Your task to perform on an android device: check storage Image 0: 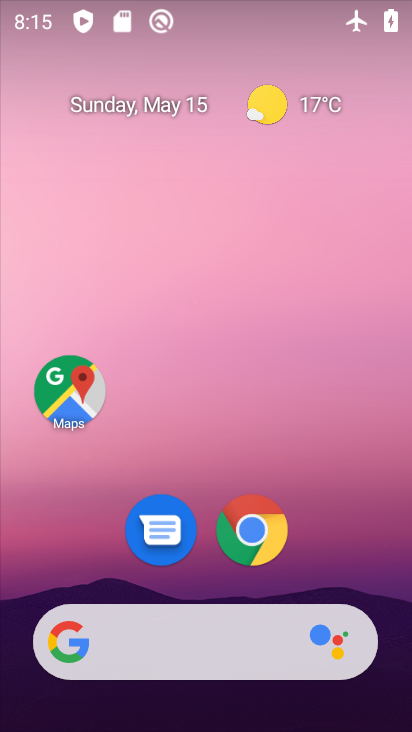
Step 0: drag from (225, 724) to (229, 194)
Your task to perform on an android device: check storage Image 1: 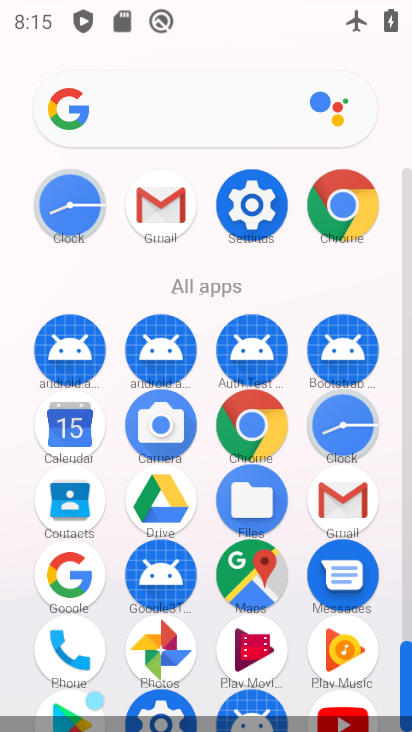
Step 1: click (254, 206)
Your task to perform on an android device: check storage Image 2: 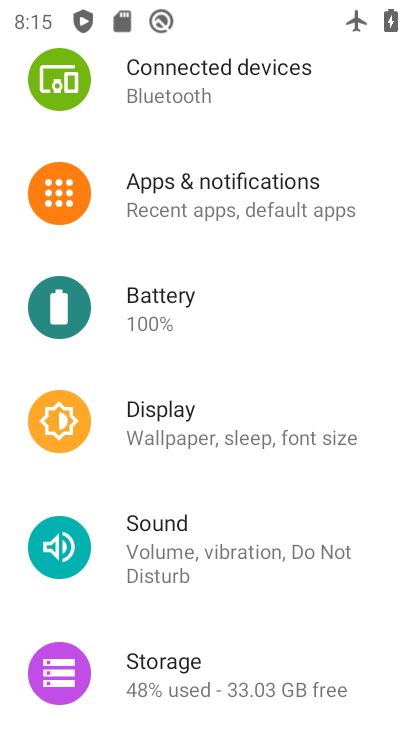
Step 2: click (158, 672)
Your task to perform on an android device: check storage Image 3: 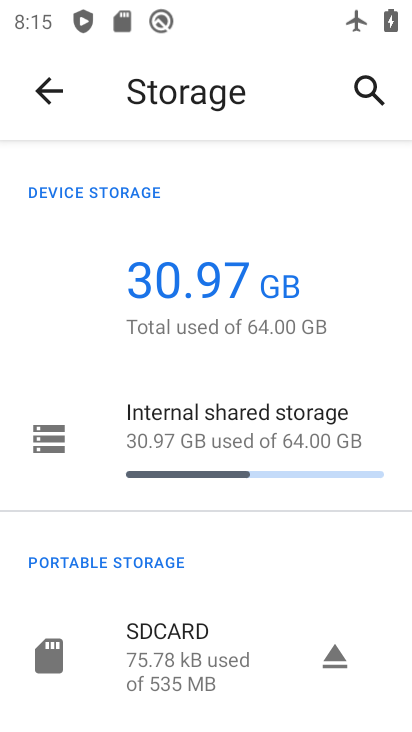
Step 3: task complete